Your task to perform on an android device: Open settings Image 0: 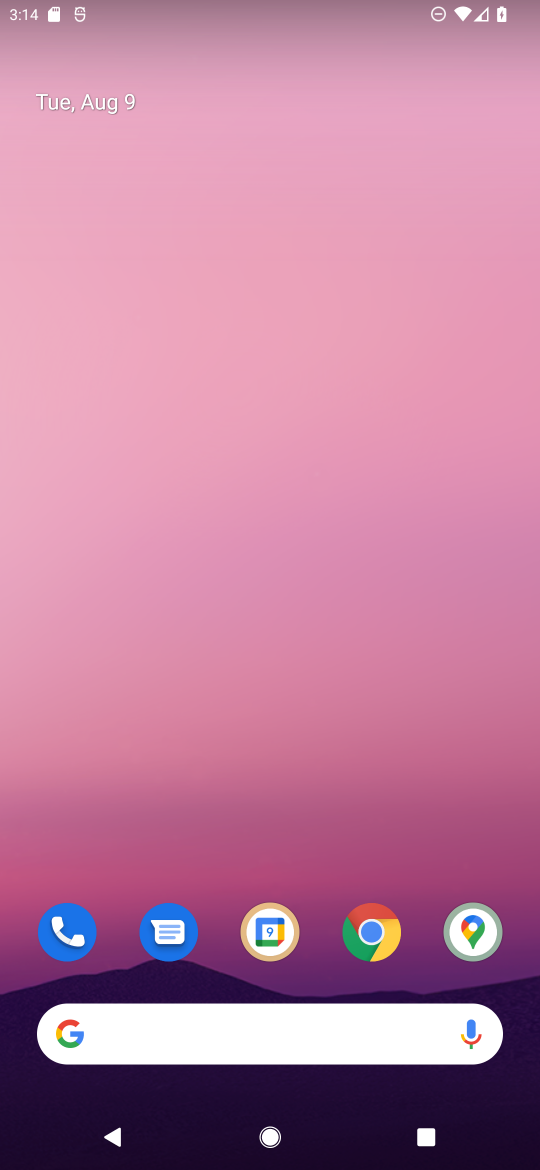
Step 0: drag from (27, 1129) to (168, 20)
Your task to perform on an android device: Open settings Image 1: 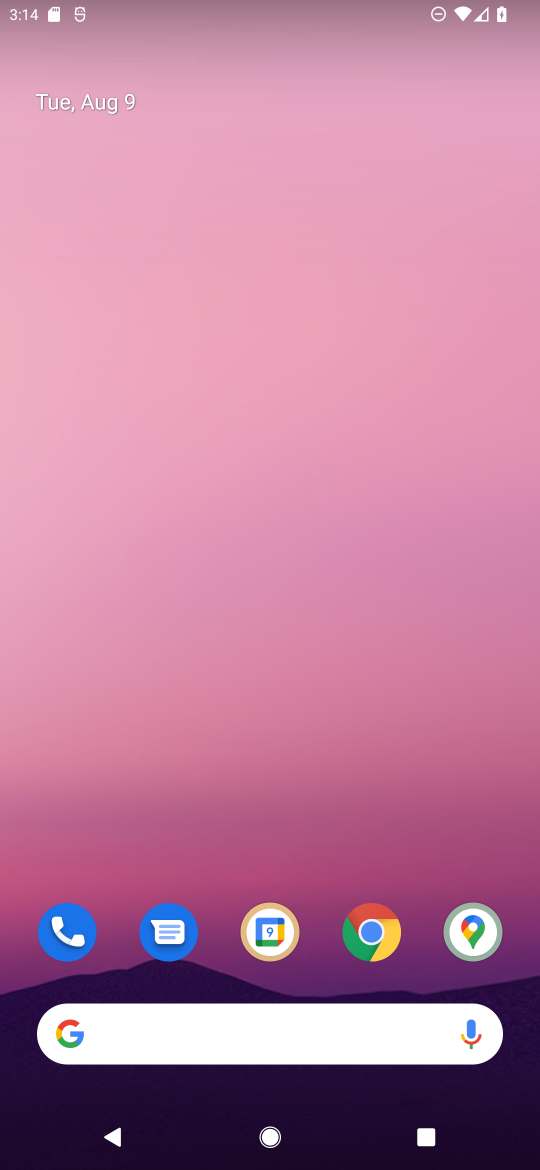
Step 1: drag from (79, 1136) to (255, 326)
Your task to perform on an android device: Open settings Image 2: 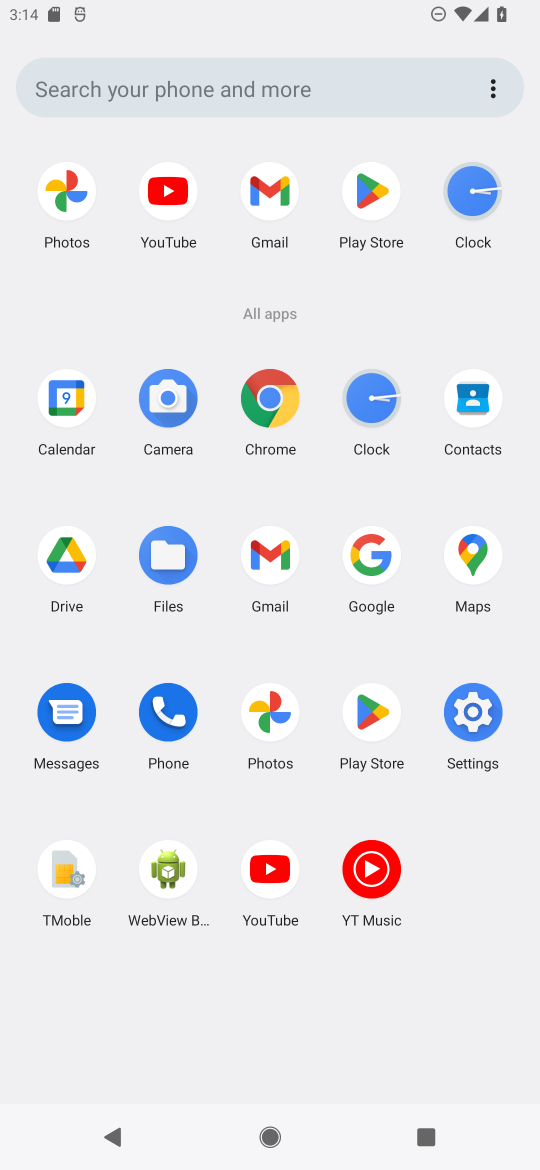
Step 2: click (482, 732)
Your task to perform on an android device: Open settings Image 3: 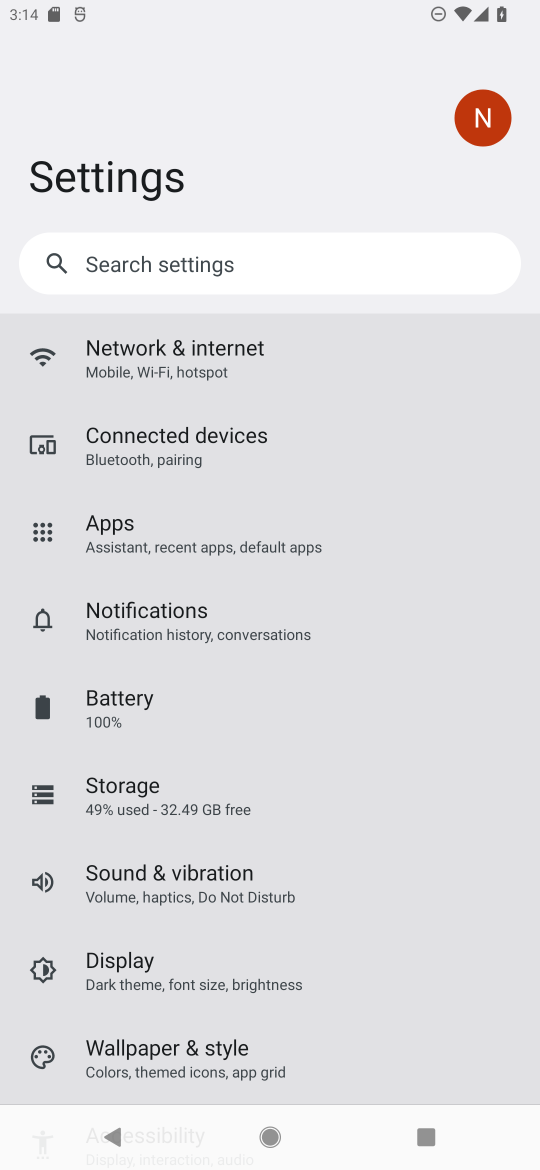
Step 3: task complete